Your task to perform on an android device: Open settings on Google Maps Image 0: 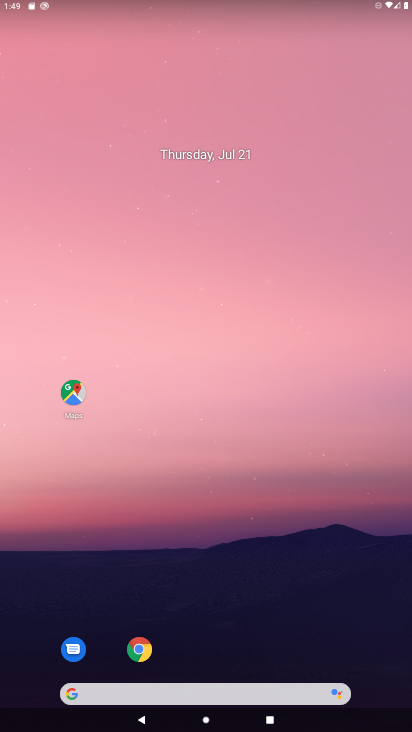
Step 0: drag from (268, 659) to (187, 79)
Your task to perform on an android device: Open settings on Google Maps Image 1: 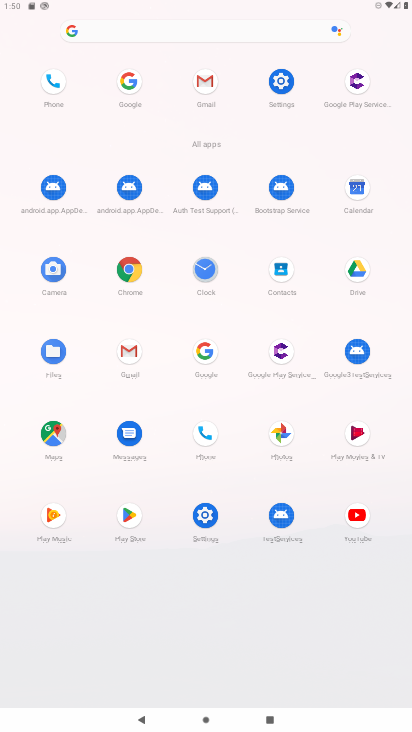
Step 1: click (54, 439)
Your task to perform on an android device: Open settings on Google Maps Image 2: 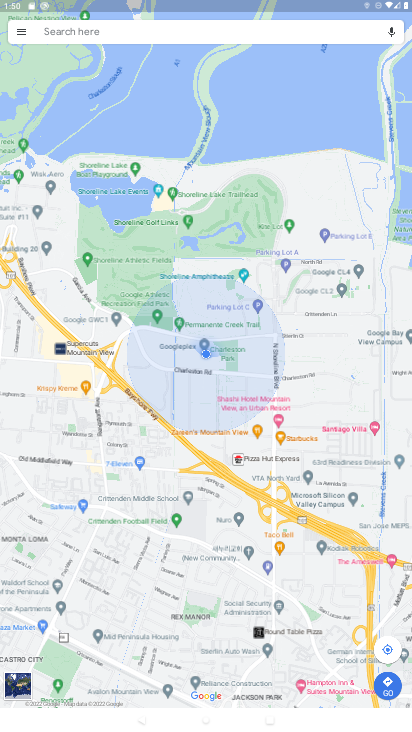
Step 2: click (20, 23)
Your task to perform on an android device: Open settings on Google Maps Image 3: 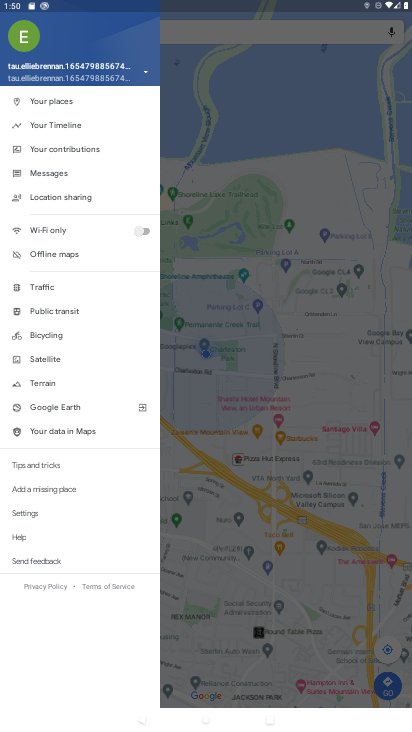
Step 3: click (34, 513)
Your task to perform on an android device: Open settings on Google Maps Image 4: 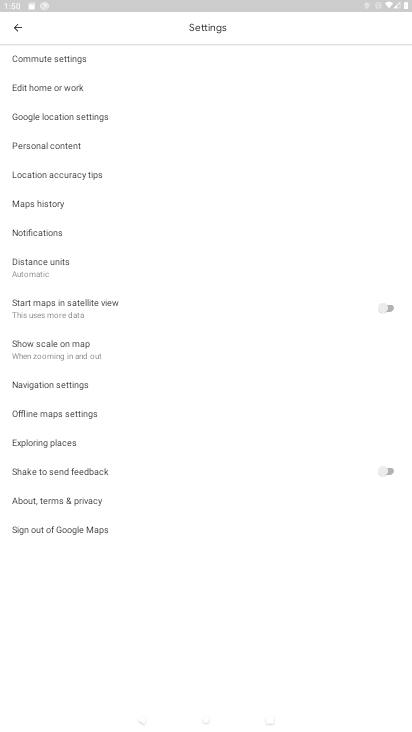
Step 4: task complete